Your task to perform on an android device: visit the assistant section in the google photos Image 0: 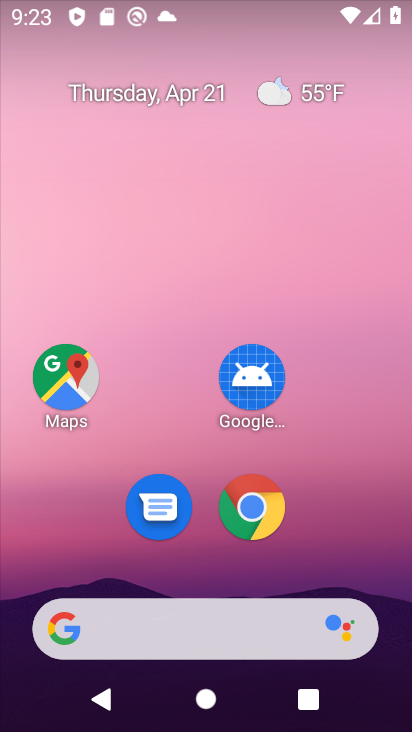
Step 0: drag from (304, 513) to (283, 174)
Your task to perform on an android device: visit the assistant section in the google photos Image 1: 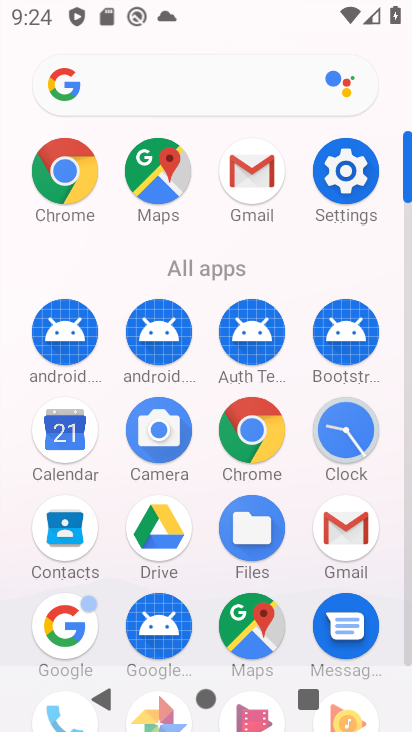
Step 1: drag from (190, 556) to (197, 182)
Your task to perform on an android device: visit the assistant section in the google photos Image 2: 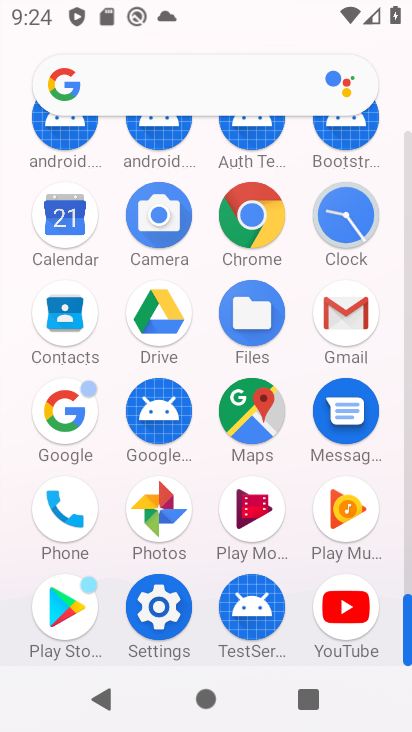
Step 2: click (151, 505)
Your task to perform on an android device: visit the assistant section in the google photos Image 3: 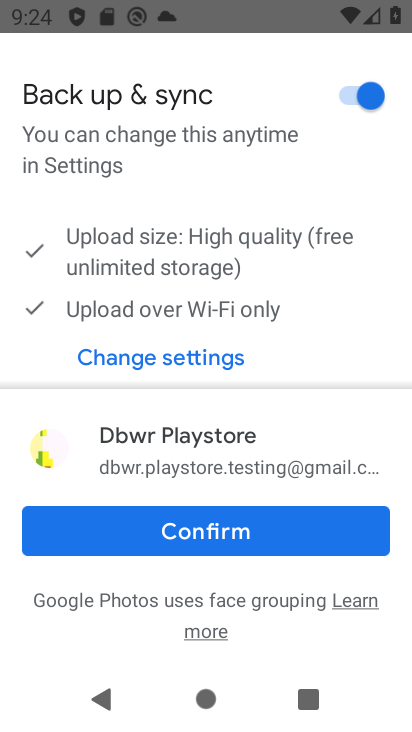
Step 3: click (162, 521)
Your task to perform on an android device: visit the assistant section in the google photos Image 4: 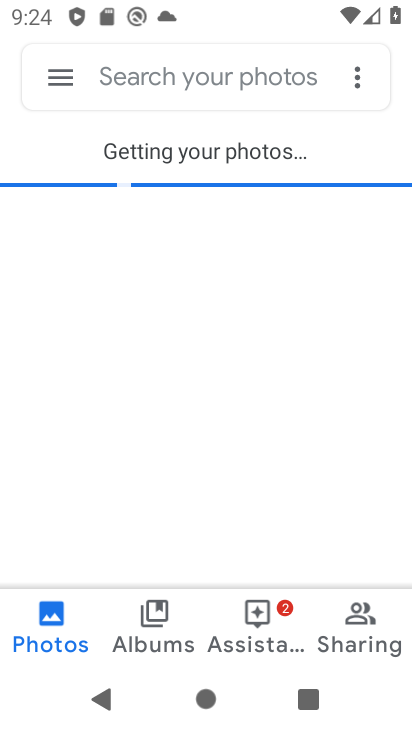
Step 4: click (258, 614)
Your task to perform on an android device: visit the assistant section in the google photos Image 5: 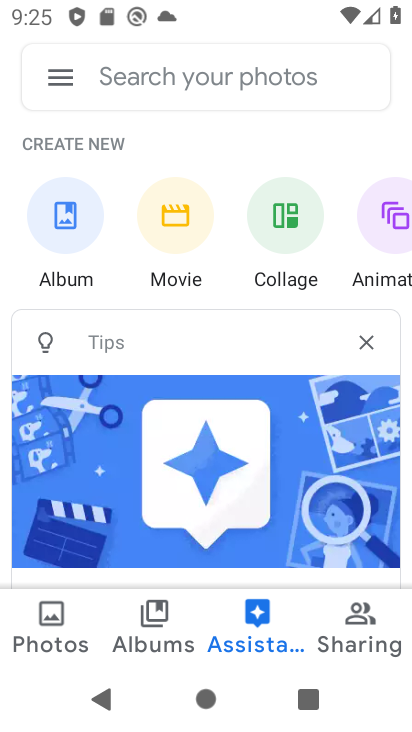
Step 5: task complete